Your task to perform on an android device: Search for pizza restaurants on Maps Image 0: 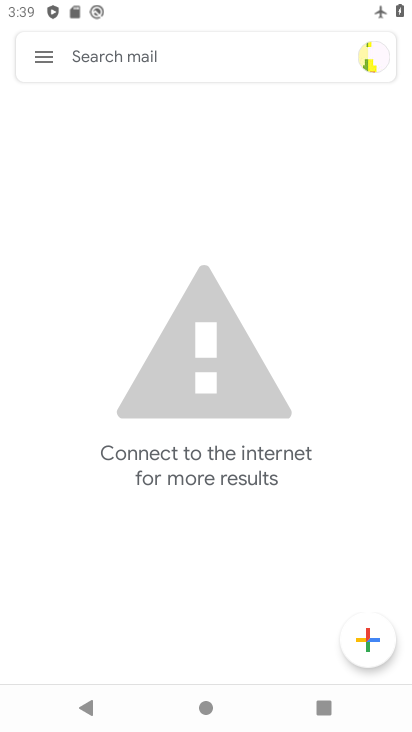
Step 0: press home button
Your task to perform on an android device: Search for pizza restaurants on Maps Image 1: 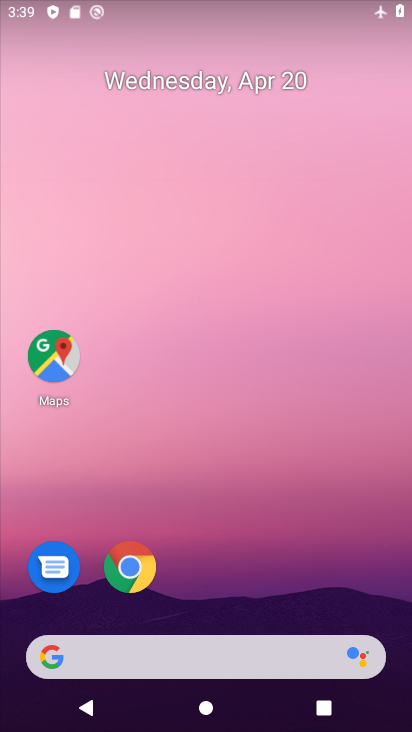
Step 1: drag from (309, 5) to (322, 584)
Your task to perform on an android device: Search for pizza restaurants on Maps Image 2: 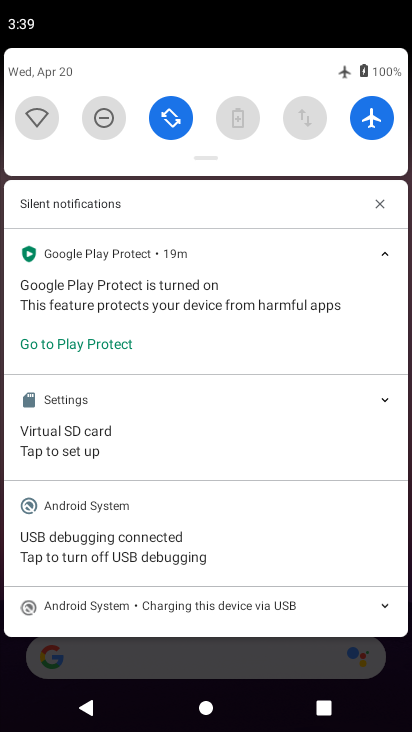
Step 2: click (372, 118)
Your task to perform on an android device: Search for pizza restaurants on Maps Image 3: 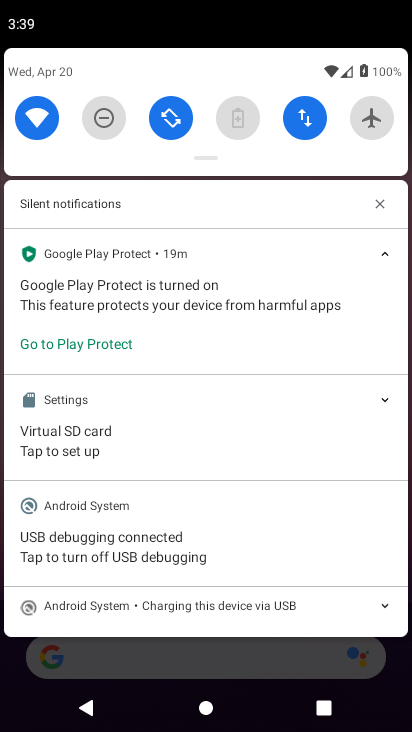
Step 3: click (393, 659)
Your task to perform on an android device: Search for pizza restaurants on Maps Image 4: 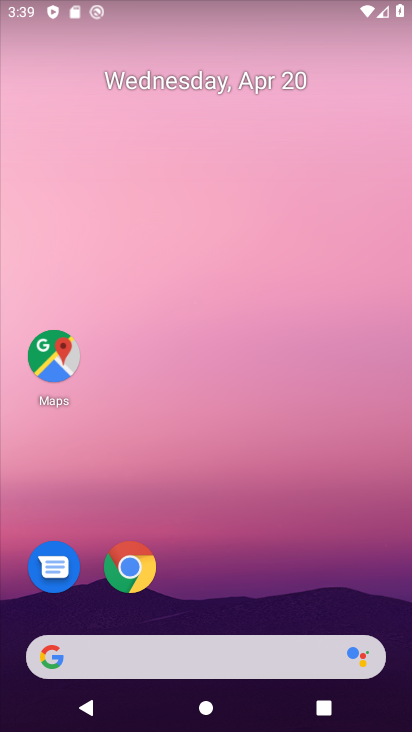
Step 4: click (37, 358)
Your task to perform on an android device: Search for pizza restaurants on Maps Image 5: 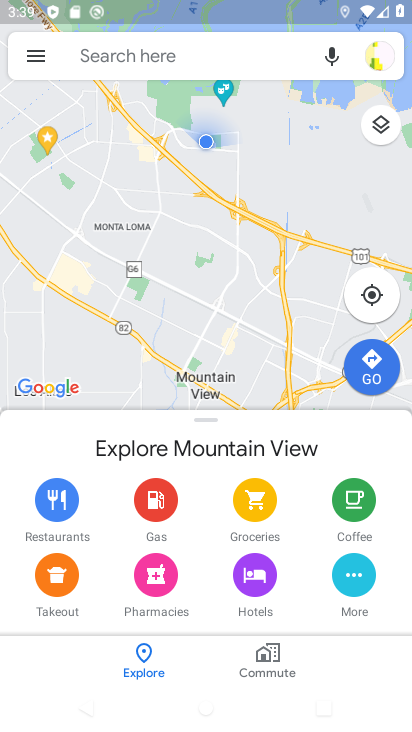
Step 5: click (240, 55)
Your task to perform on an android device: Search for pizza restaurants on Maps Image 6: 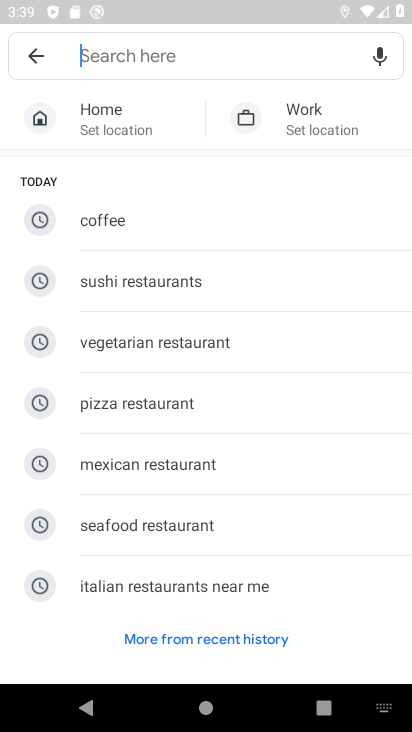
Step 6: click (292, 416)
Your task to perform on an android device: Search for pizza restaurants on Maps Image 7: 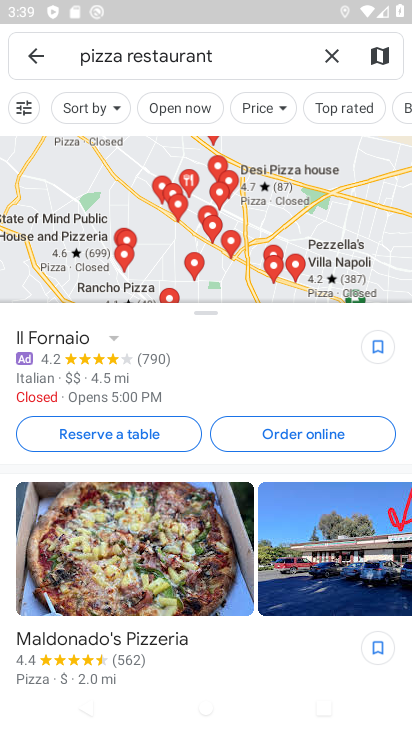
Step 7: task complete